Your task to perform on an android device: turn off javascript in the chrome app Image 0: 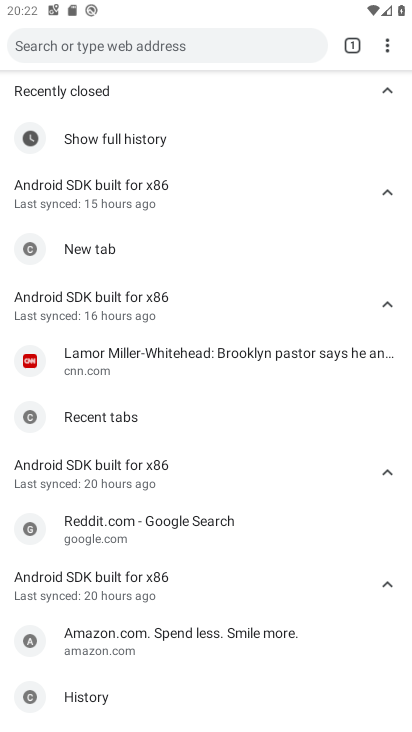
Step 0: click (387, 47)
Your task to perform on an android device: turn off javascript in the chrome app Image 1: 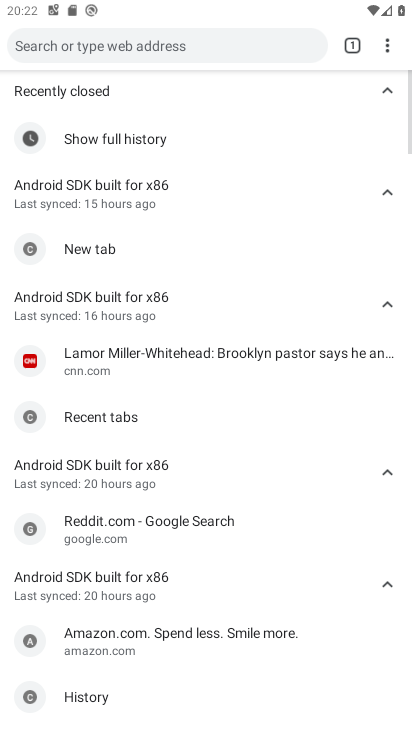
Step 1: click (387, 47)
Your task to perform on an android device: turn off javascript in the chrome app Image 2: 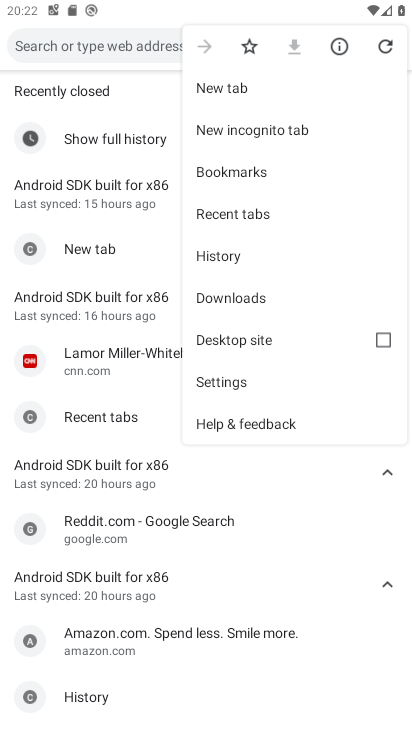
Step 2: click (224, 384)
Your task to perform on an android device: turn off javascript in the chrome app Image 3: 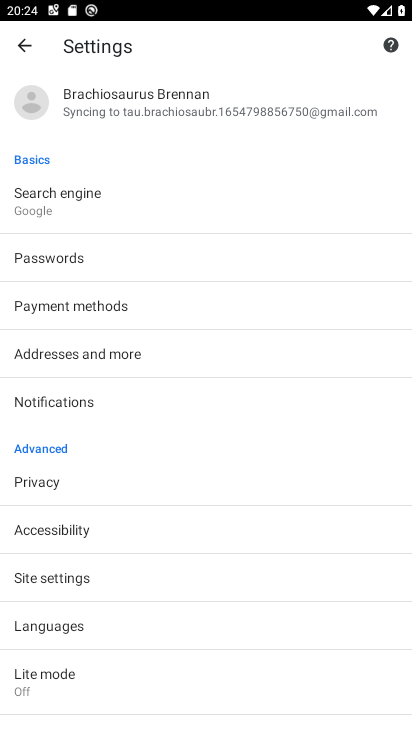
Step 3: click (65, 582)
Your task to perform on an android device: turn off javascript in the chrome app Image 4: 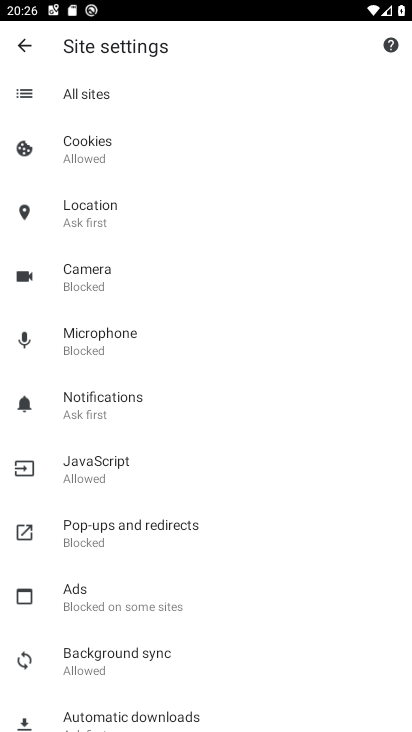
Step 4: click (87, 462)
Your task to perform on an android device: turn off javascript in the chrome app Image 5: 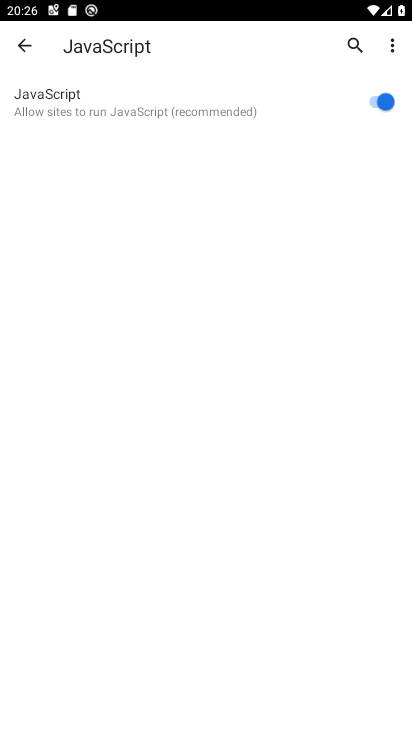
Step 5: click (379, 100)
Your task to perform on an android device: turn off javascript in the chrome app Image 6: 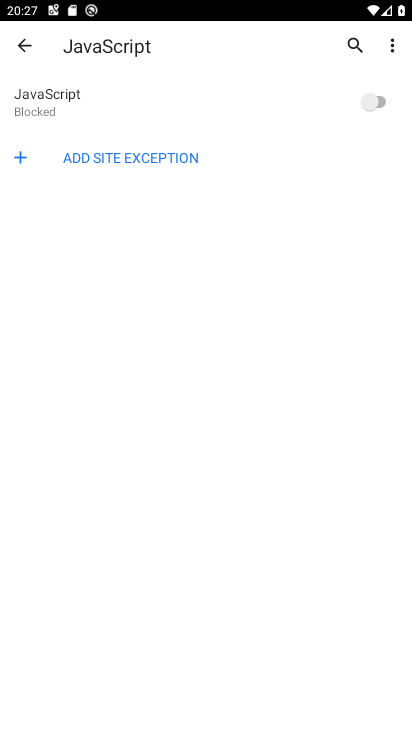
Step 6: task complete